Your task to perform on an android device: Open the Play Movies app and select the watchlist tab. Image 0: 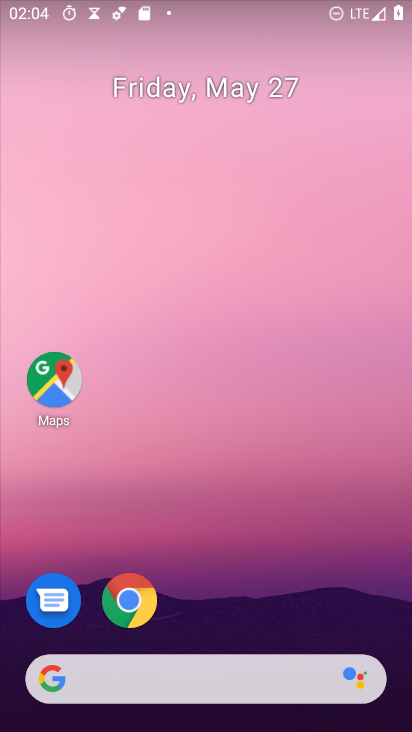
Step 0: drag from (214, 574) to (186, 374)
Your task to perform on an android device: Open the Play Movies app and select the watchlist tab. Image 1: 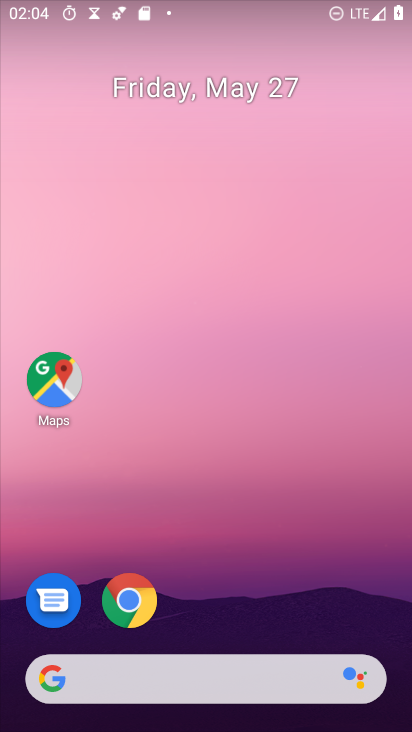
Step 1: drag from (236, 560) to (238, 108)
Your task to perform on an android device: Open the Play Movies app and select the watchlist tab. Image 2: 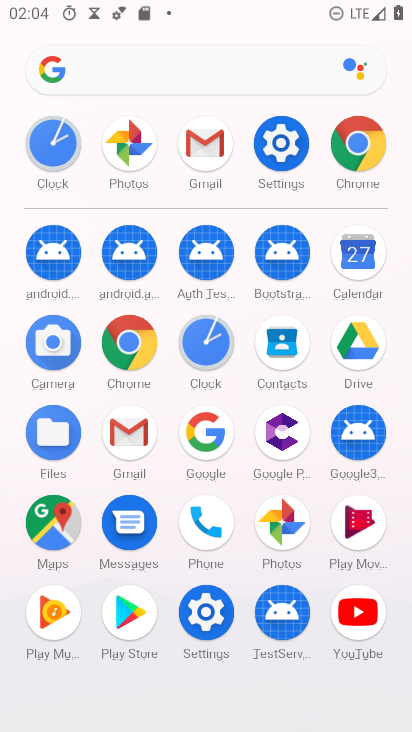
Step 2: click (350, 521)
Your task to perform on an android device: Open the Play Movies app and select the watchlist tab. Image 3: 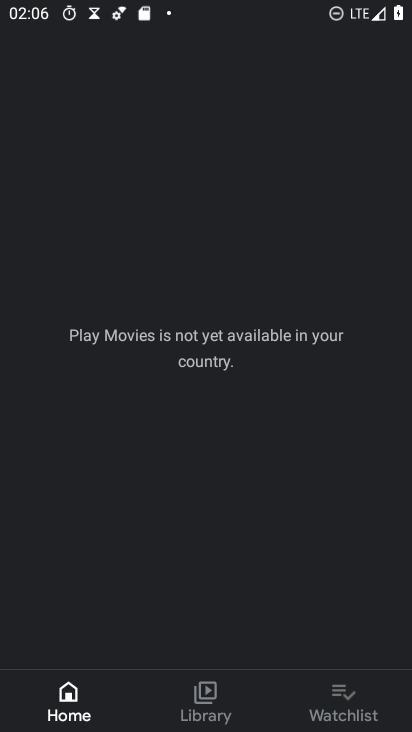
Step 3: click (341, 706)
Your task to perform on an android device: Open the Play Movies app and select the watchlist tab. Image 4: 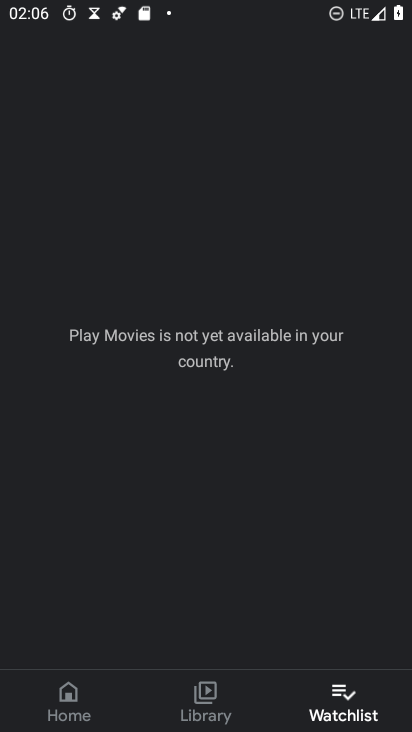
Step 4: task complete